Your task to perform on an android device: Open Chrome and go to settings Image 0: 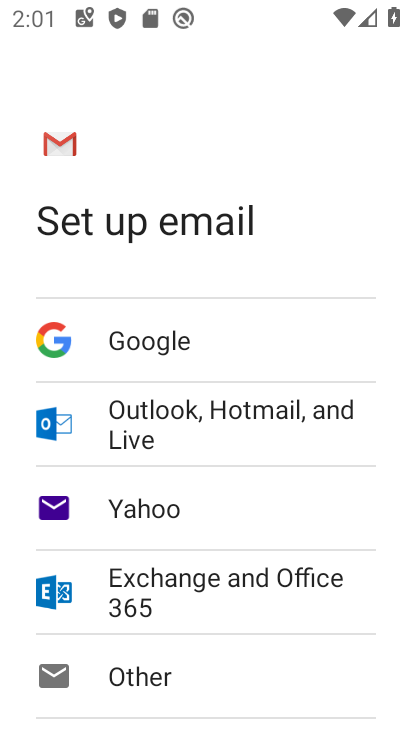
Step 0: press home button
Your task to perform on an android device: Open Chrome and go to settings Image 1: 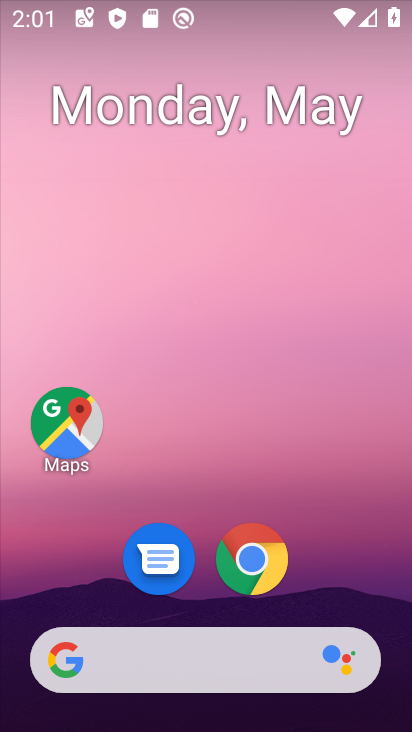
Step 1: click (236, 553)
Your task to perform on an android device: Open Chrome and go to settings Image 2: 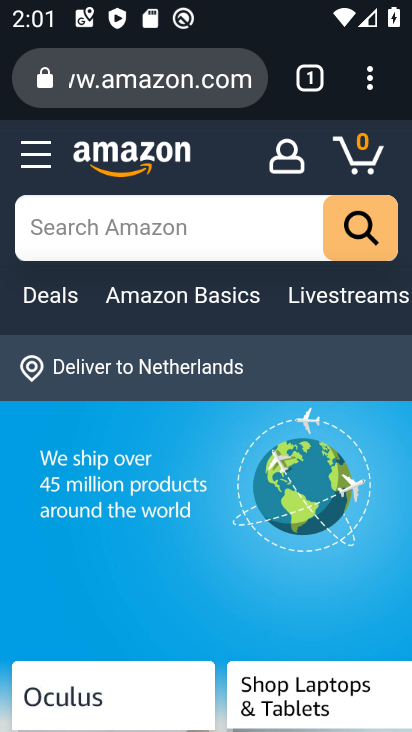
Step 2: click (373, 79)
Your task to perform on an android device: Open Chrome and go to settings Image 3: 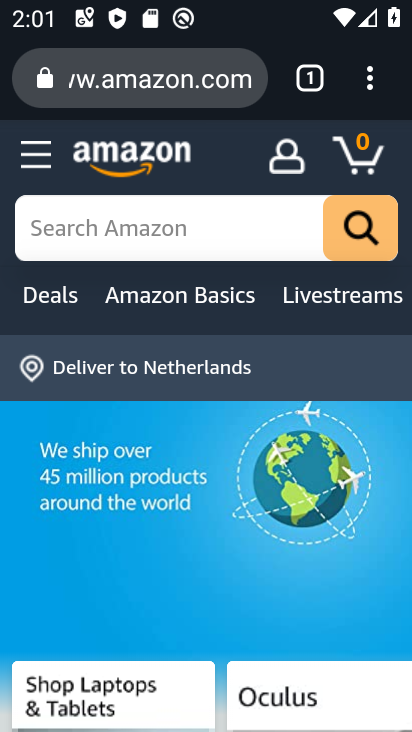
Step 3: click (376, 84)
Your task to perform on an android device: Open Chrome and go to settings Image 4: 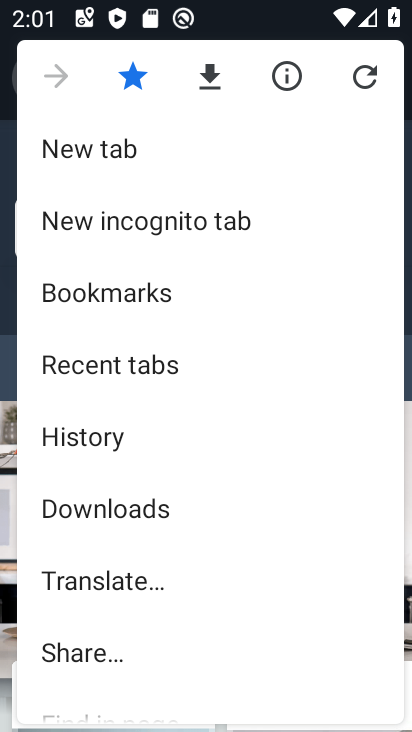
Step 4: drag from (203, 703) to (213, 89)
Your task to perform on an android device: Open Chrome and go to settings Image 5: 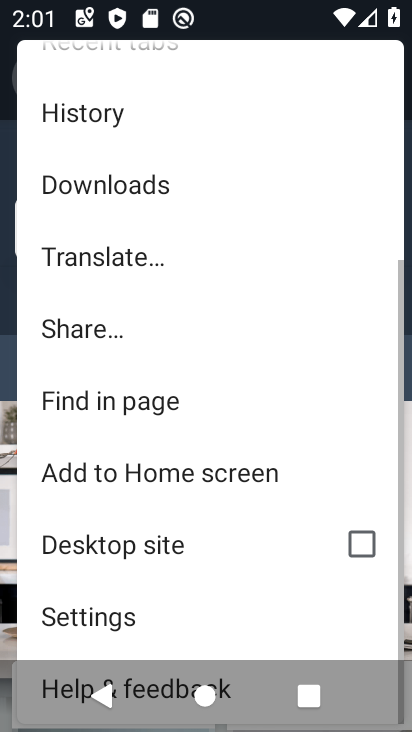
Step 5: click (158, 615)
Your task to perform on an android device: Open Chrome and go to settings Image 6: 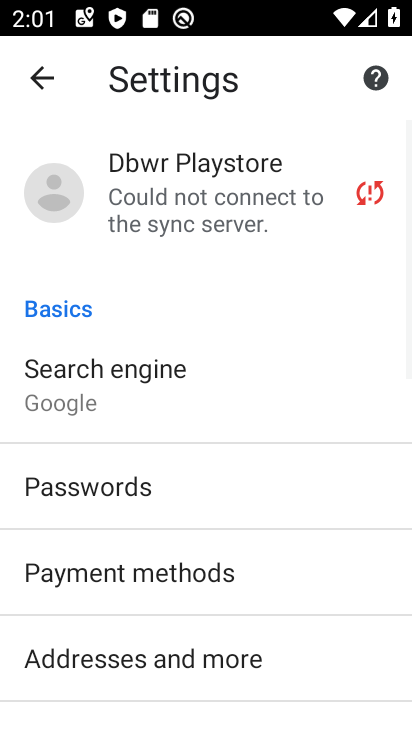
Step 6: task complete